Your task to perform on an android device: check android version Image 0: 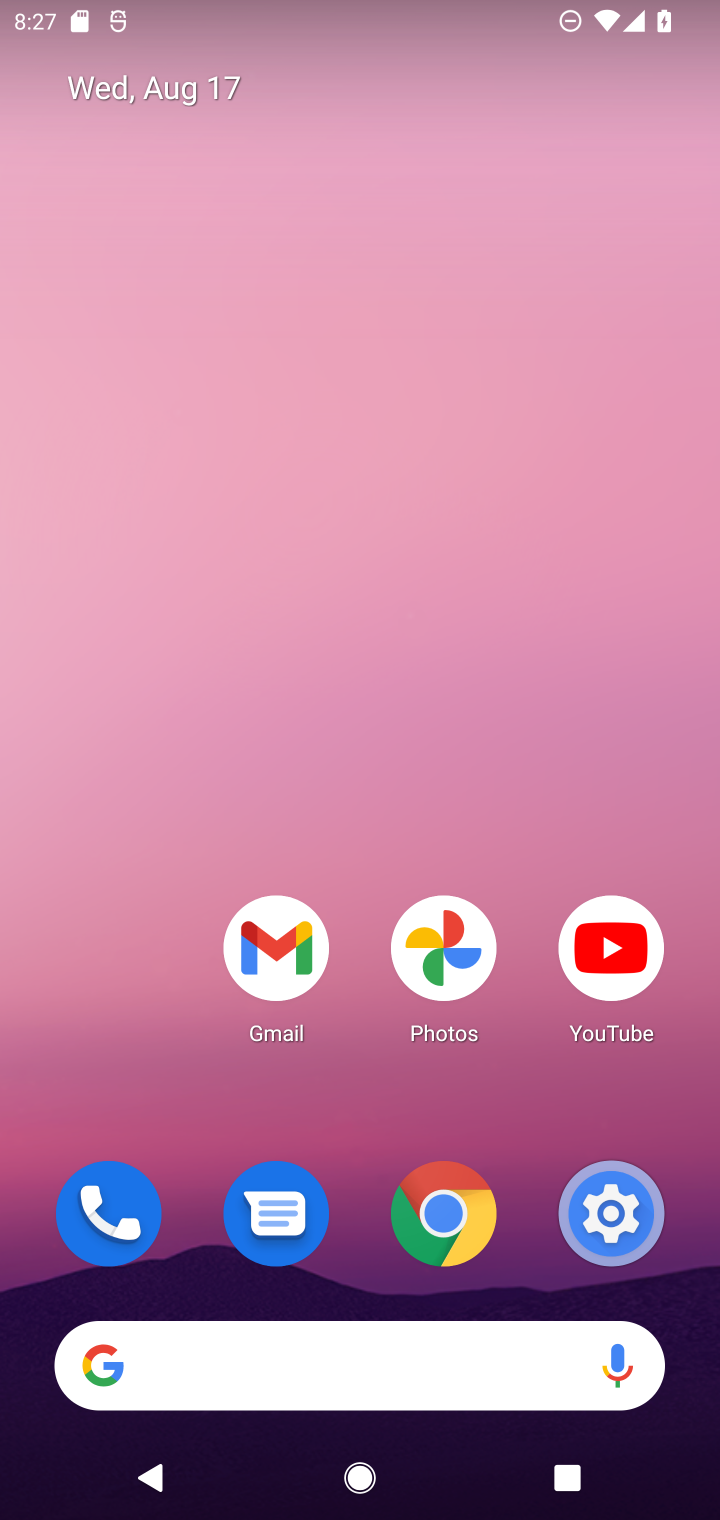
Step 0: click (631, 1203)
Your task to perform on an android device: check android version Image 1: 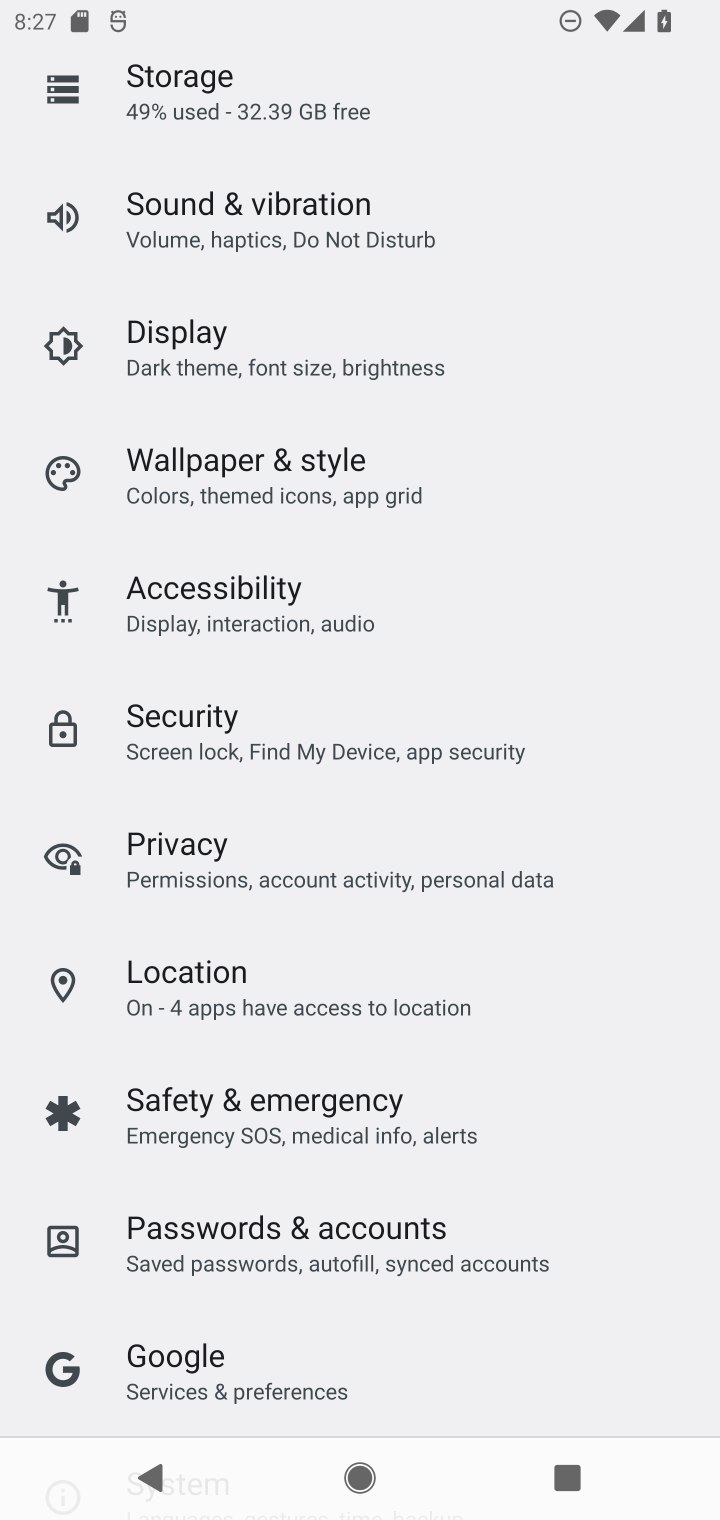
Step 1: task complete